Your task to perform on an android device: Is it going to rain this weekend? Image 0: 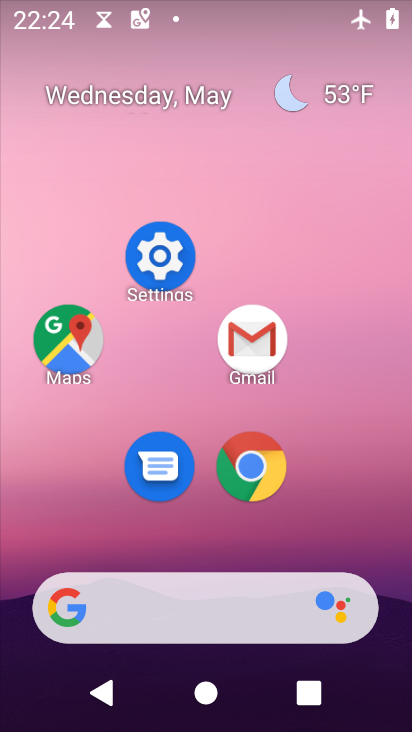
Step 0: drag from (180, 546) to (196, 300)
Your task to perform on an android device: Is it going to rain this weekend? Image 1: 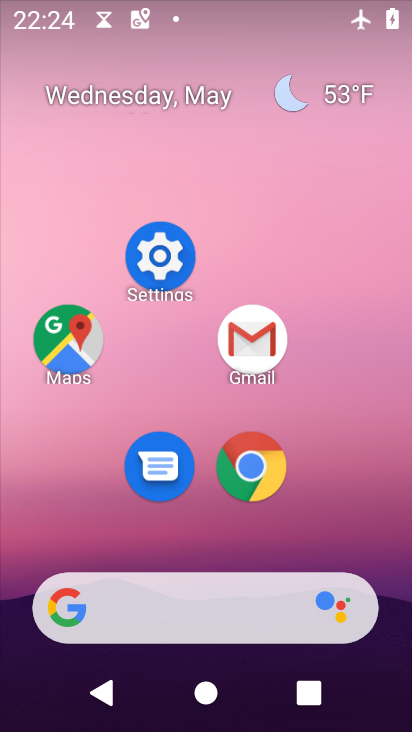
Step 1: drag from (194, 551) to (228, 215)
Your task to perform on an android device: Is it going to rain this weekend? Image 2: 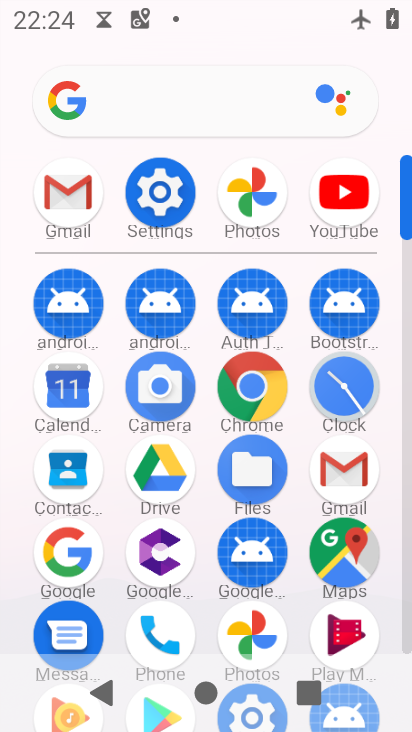
Step 2: click (185, 102)
Your task to perform on an android device: Is it going to rain this weekend? Image 3: 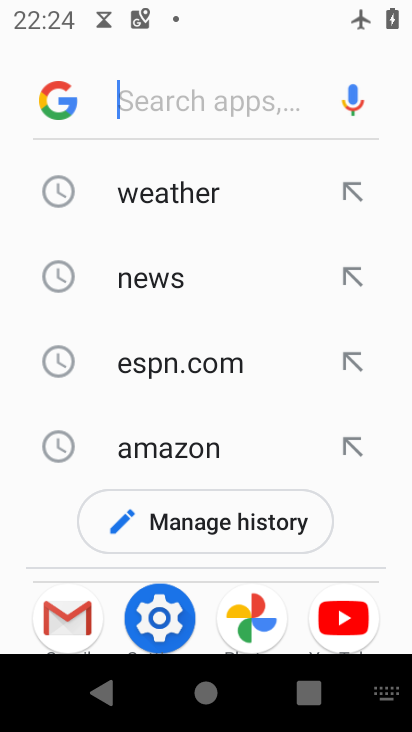
Step 3: type "rain weekend"
Your task to perform on an android device: Is it going to rain this weekend? Image 4: 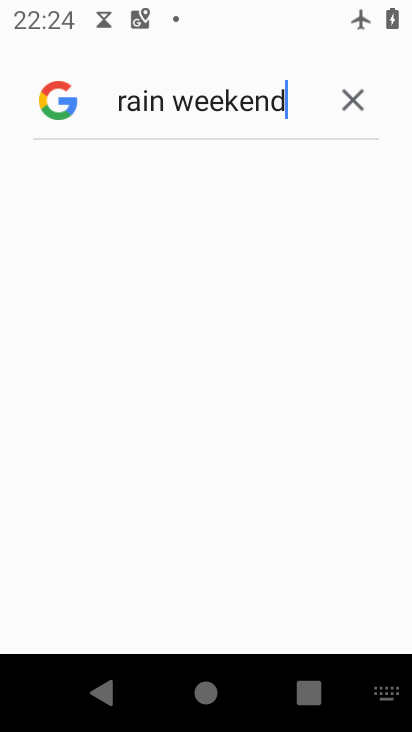
Step 4: drag from (184, 409) to (200, 221)
Your task to perform on an android device: Is it going to rain this weekend? Image 5: 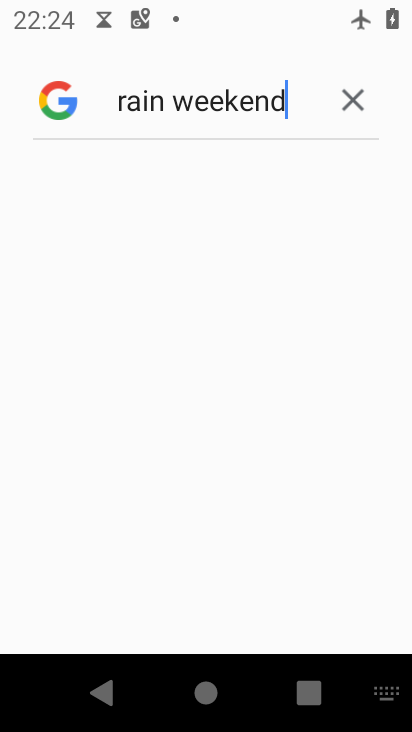
Step 5: click (198, 218)
Your task to perform on an android device: Is it going to rain this weekend? Image 6: 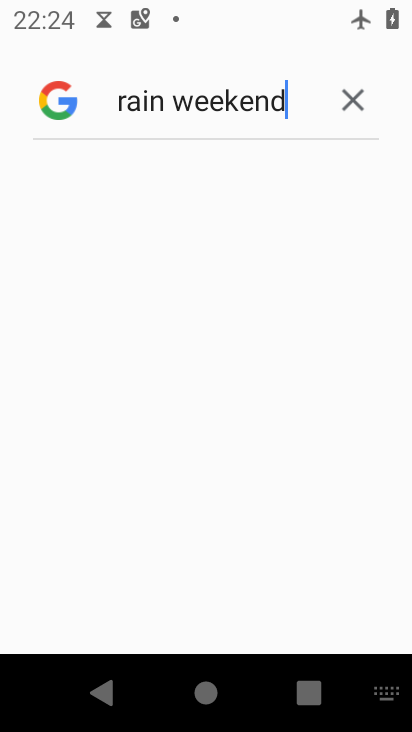
Step 6: task complete